Your task to perform on an android device: What's a good restaurant in Portland? Image 0: 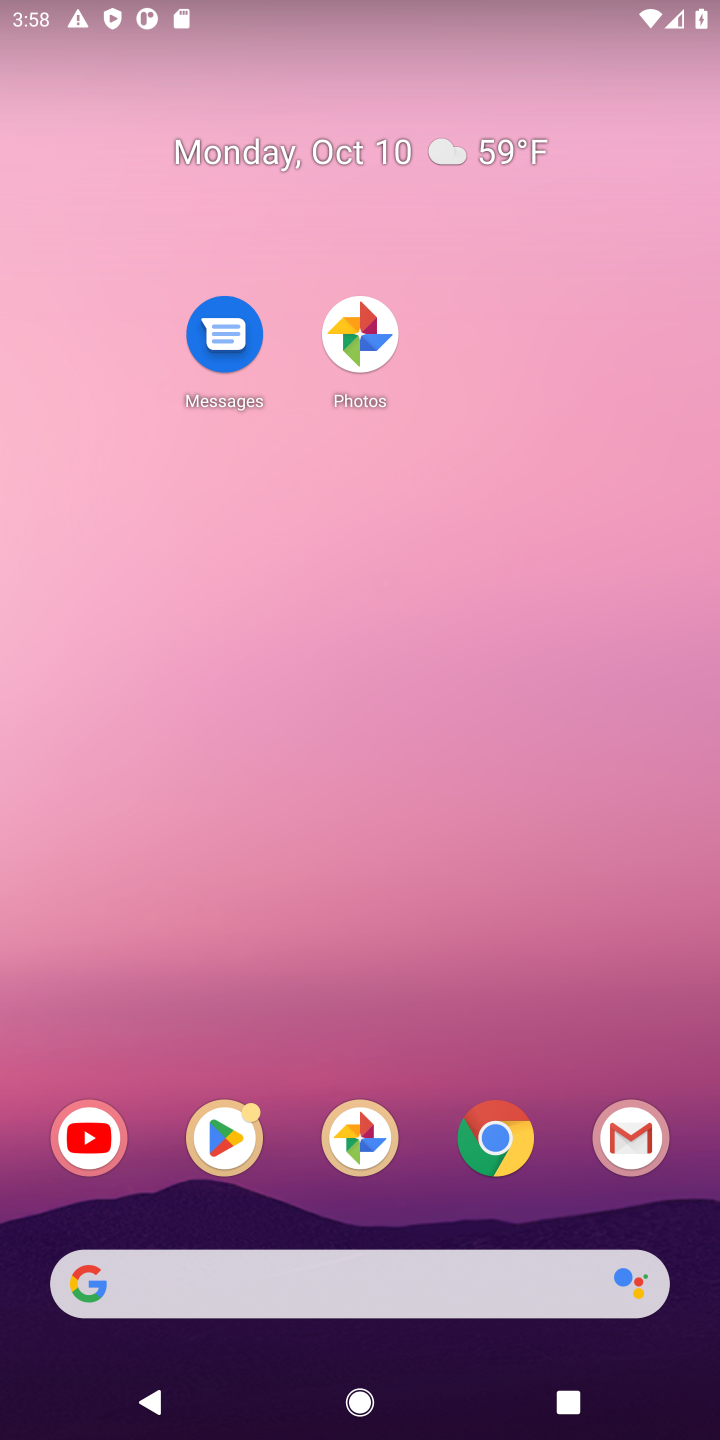
Step 0: drag from (299, 1043) to (299, 209)
Your task to perform on an android device: What's a good restaurant in Portland? Image 1: 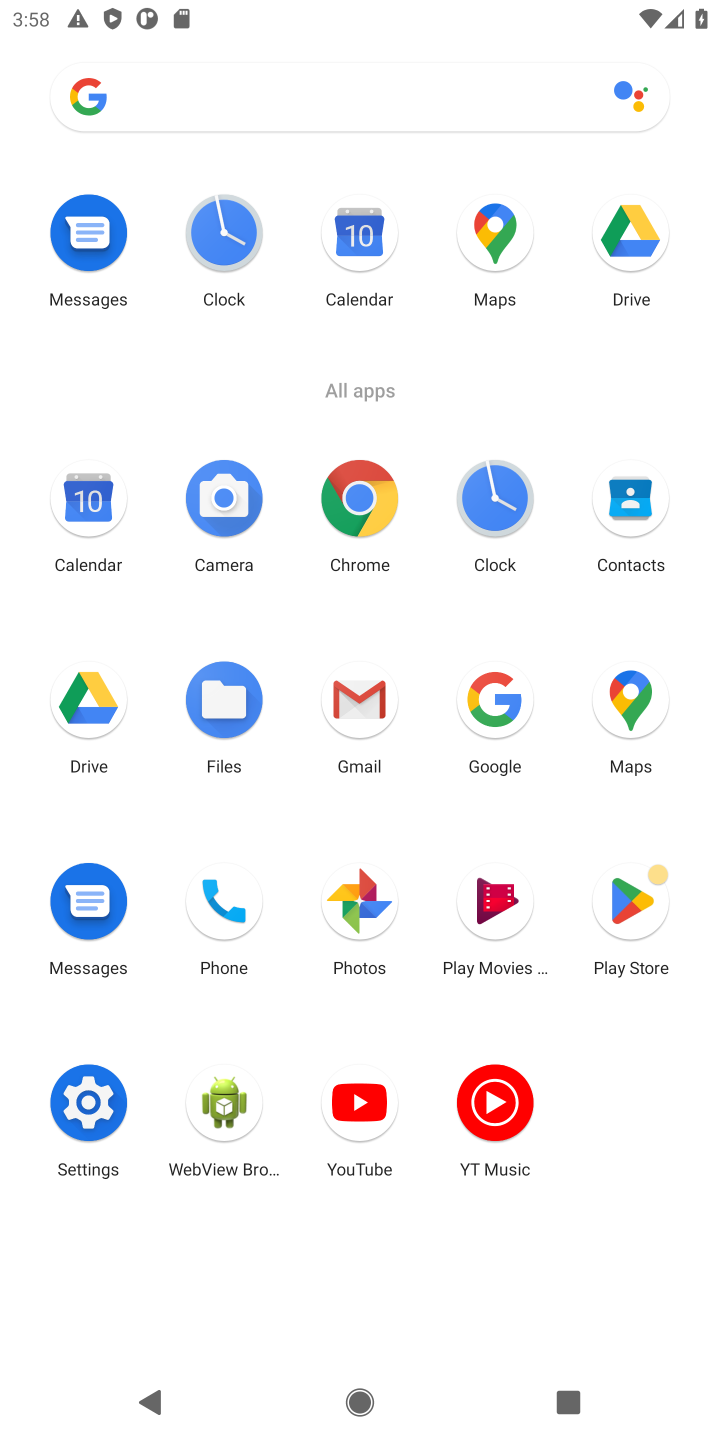
Step 1: click (482, 701)
Your task to perform on an android device: What's a good restaurant in Portland? Image 2: 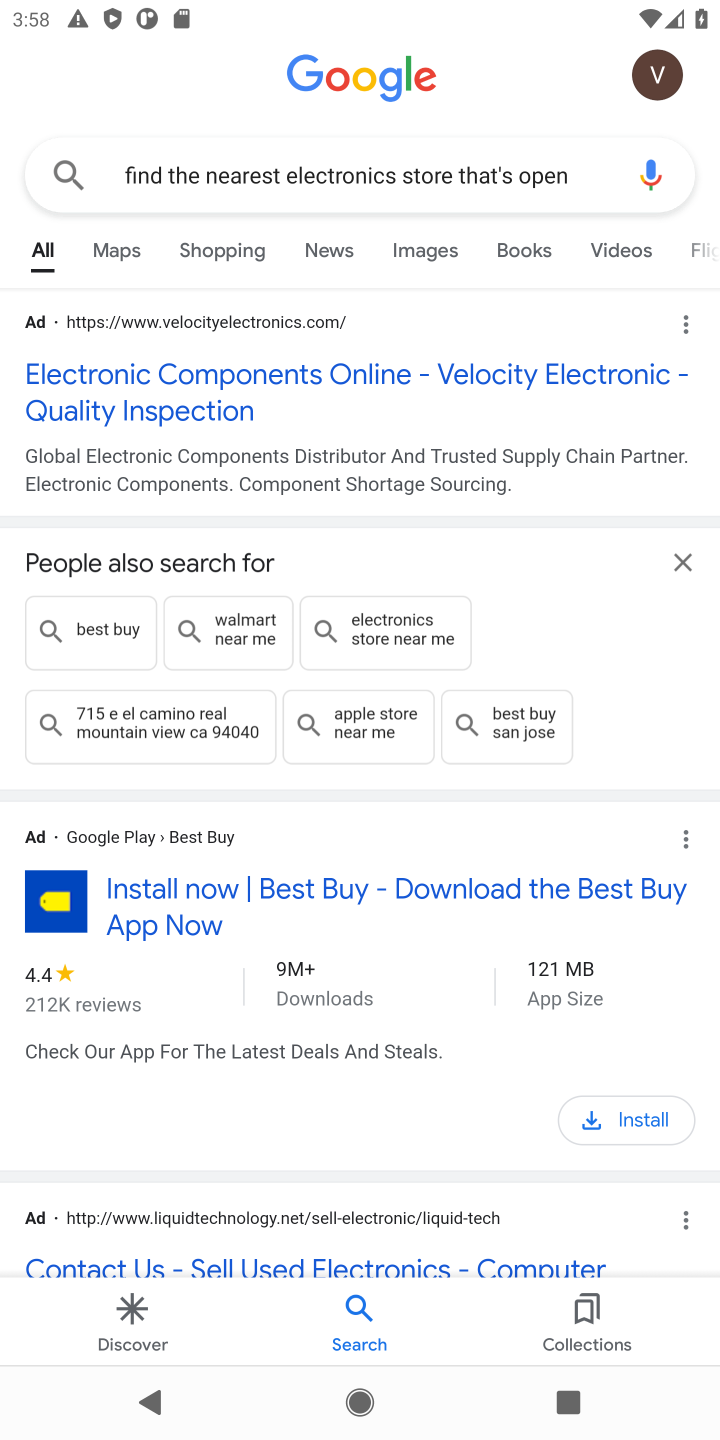
Step 2: click (311, 153)
Your task to perform on an android device: What's a good restaurant in Portland? Image 3: 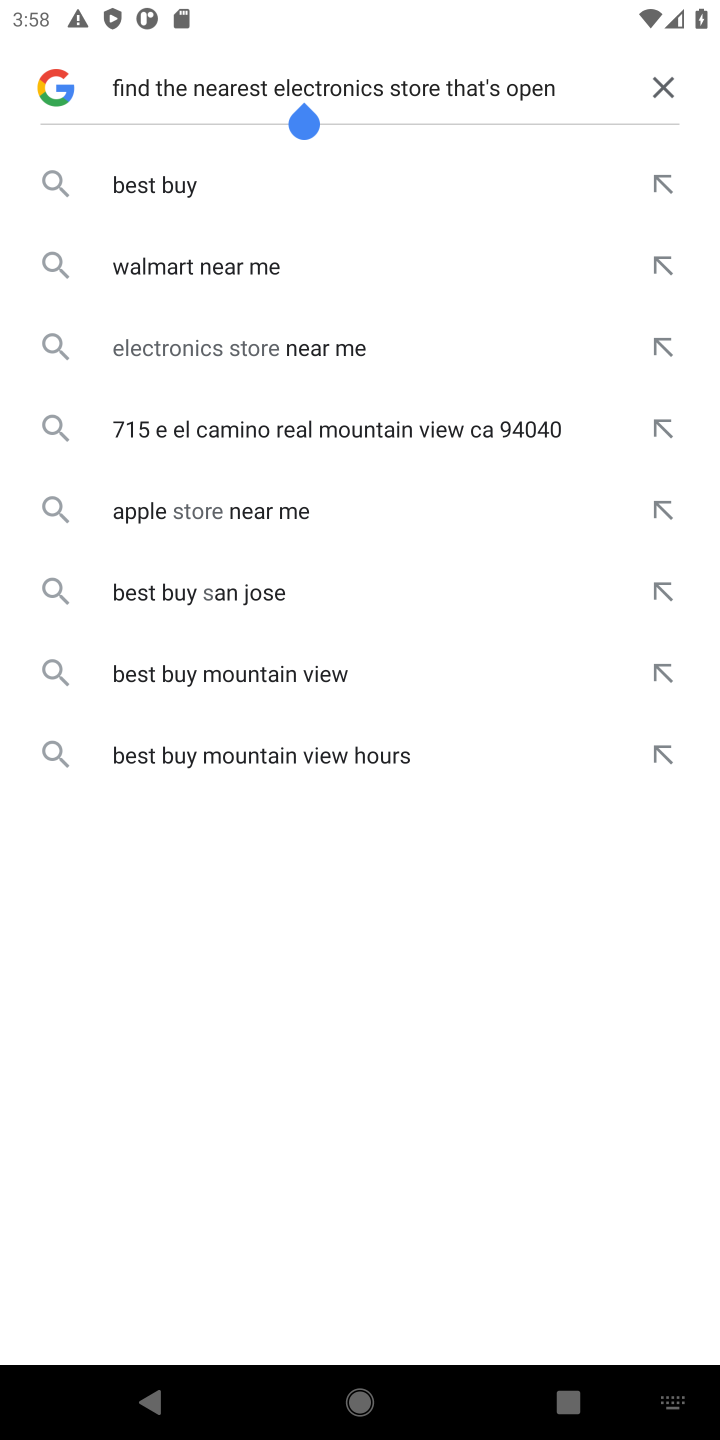
Step 3: click (658, 87)
Your task to perform on an android device: What's a good restaurant in Portland? Image 4: 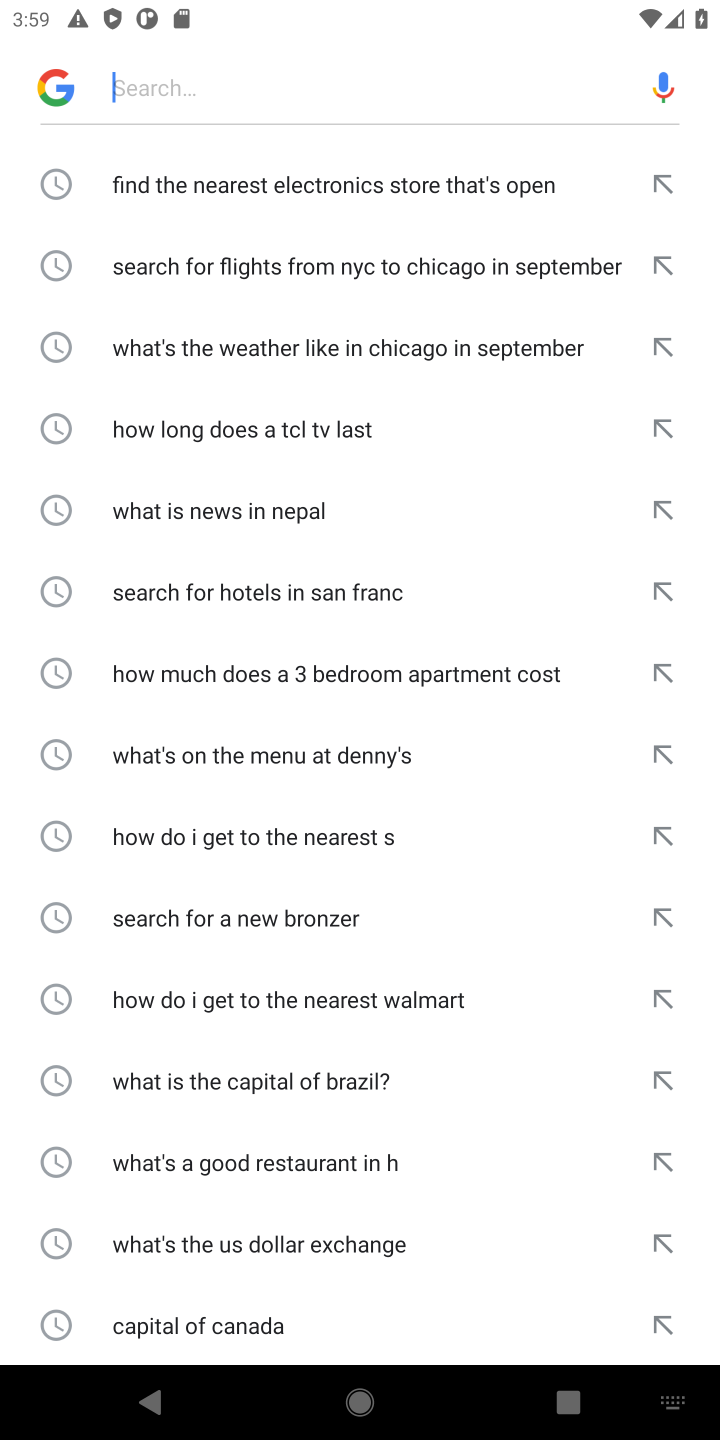
Step 4: type "What's a good restaurant in Portland?"
Your task to perform on an android device: What's a good restaurant in Portland? Image 5: 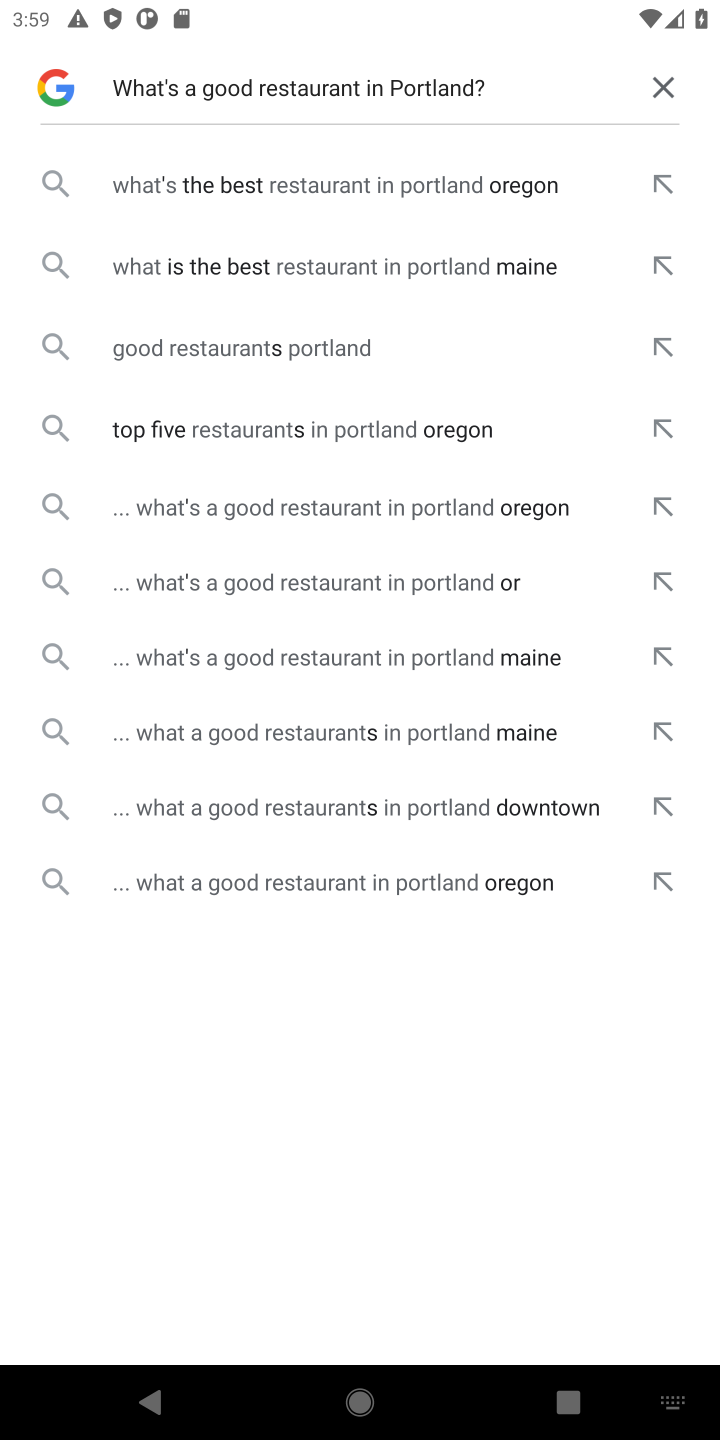
Step 5: click (307, 353)
Your task to perform on an android device: What's a good restaurant in Portland? Image 6: 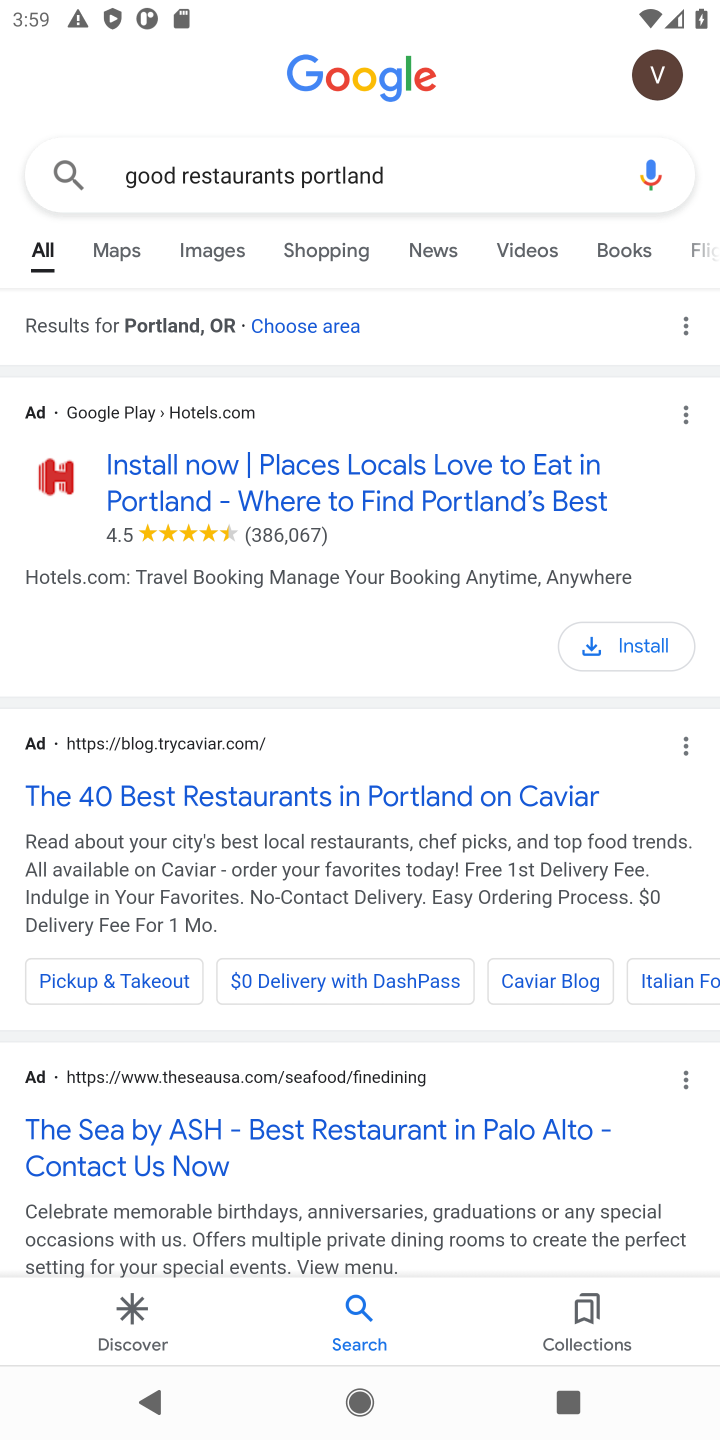
Step 6: click (287, 797)
Your task to perform on an android device: What's a good restaurant in Portland? Image 7: 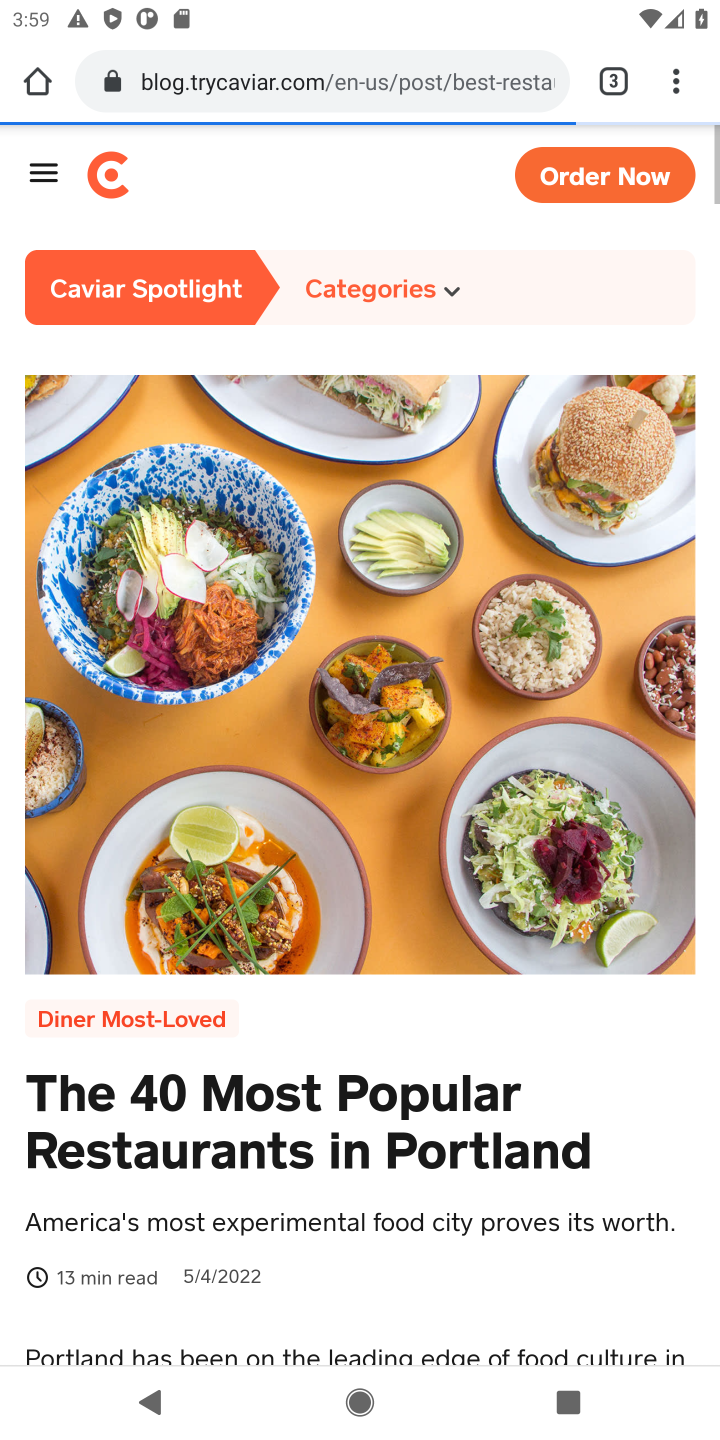
Step 7: task complete